Your task to perform on an android device: turn off picture-in-picture Image 0: 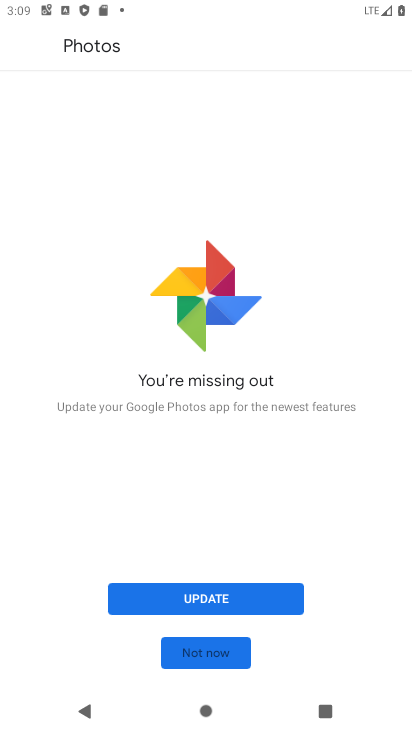
Step 0: press home button
Your task to perform on an android device: turn off picture-in-picture Image 1: 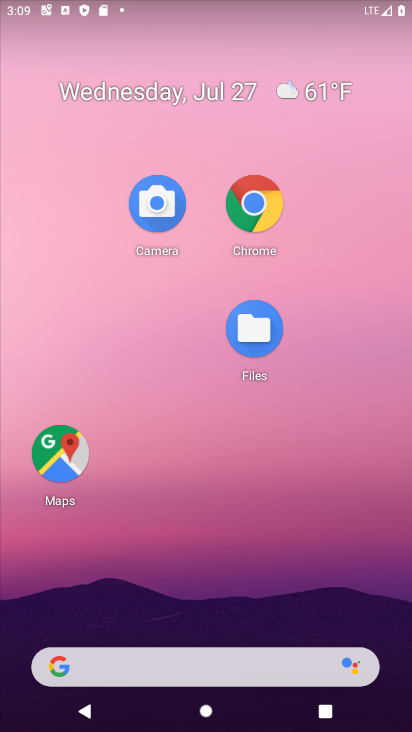
Step 1: click (239, 226)
Your task to perform on an android device: turn off picture-in-picture Image 2: 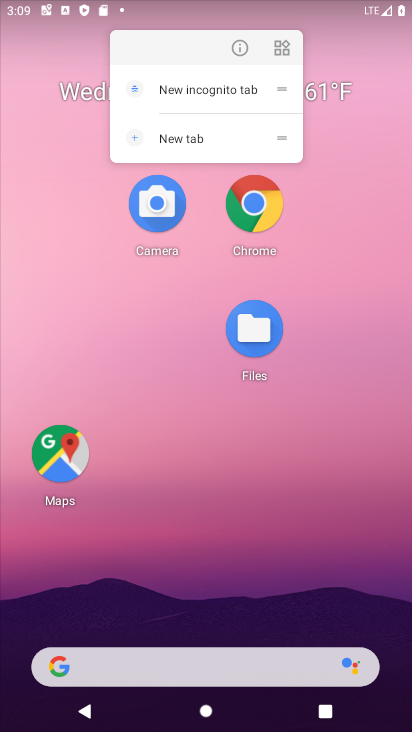
Step 2: click (246, 48)
Your task to perform on an android device: turn off picture-in-picture Image 3: 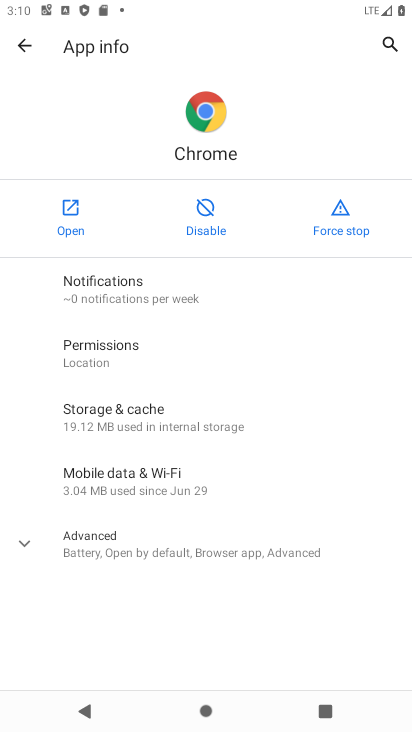
Step 3: click (142, 555)
Your task to perform on an android device: turn off picture-in-picture Image 4: 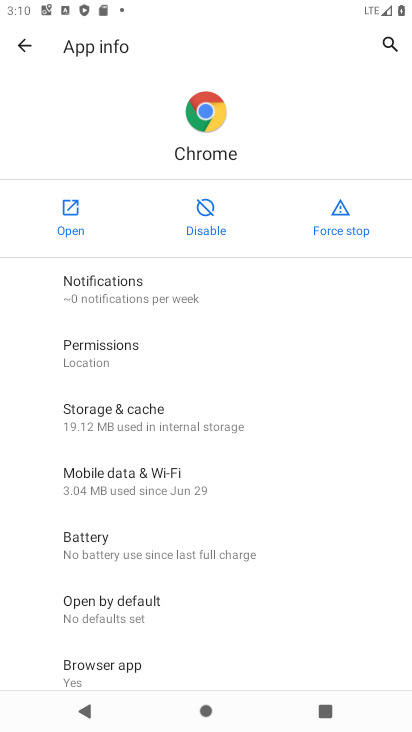
Step 4: drag from (140, 603) to (171, 189)
Your task to perform on an android device: turn off picture-in-picture Image 5: 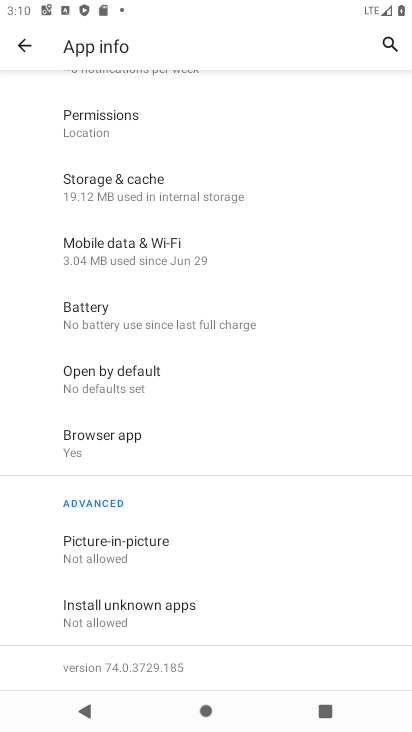
Step 5: click (163, 540)
Your task to perform on an android device: turn off picture-in-picture Image 6: 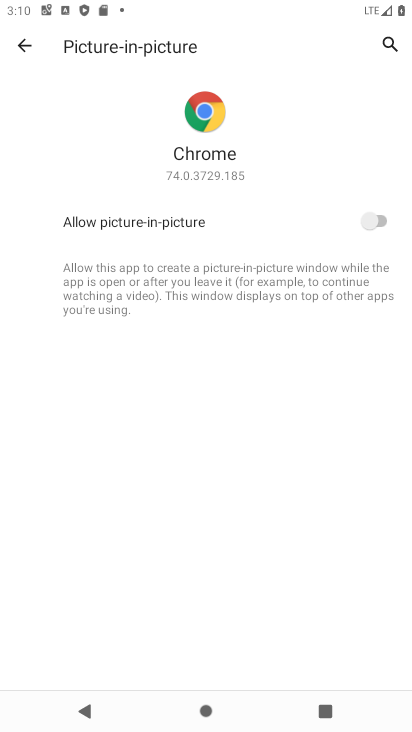
Step 6: task complete